Your task to perform on an android device: Go to display settings Image 0: 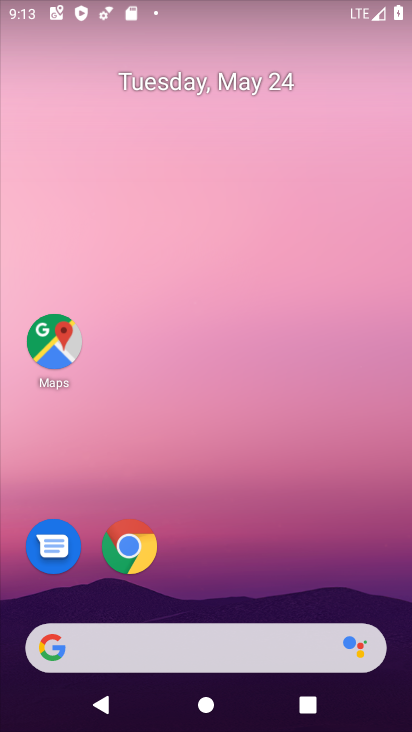
Step 0: drag from (296, 550) to (294, 17)
Your task to perform on an android device: Go to display settings Image 1: 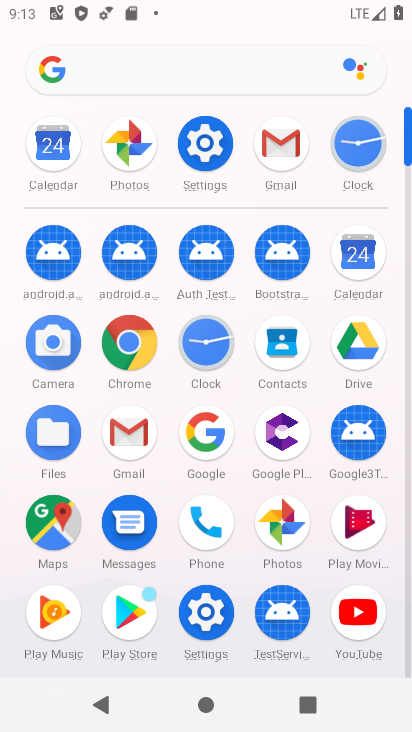
Step 1: click (207, 123)
Your task to perform on an android device: Go to display settings Image 2: 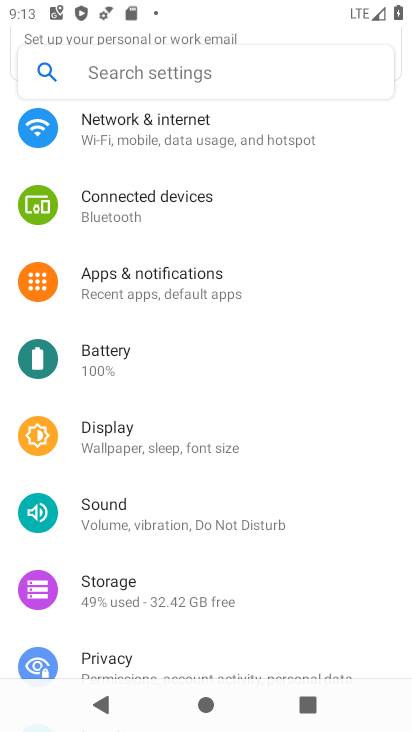
Step 2: click (147, 425)
Your task to perform on an android device: Go to display settings Image 3: 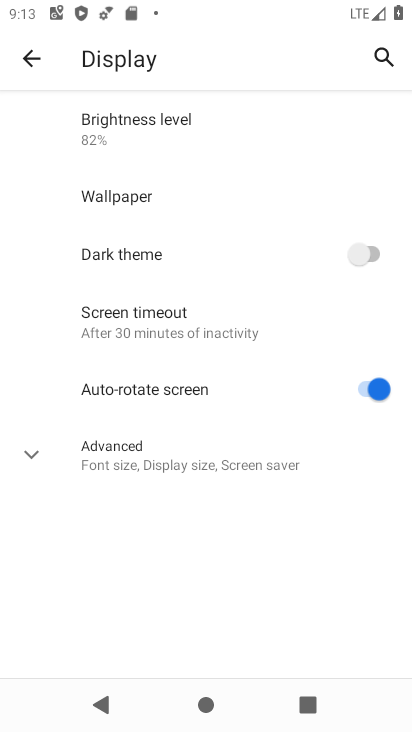
Step 3: task complete